Your task to perform on an android device: turn vacation reply on in the gmail app Image 0: 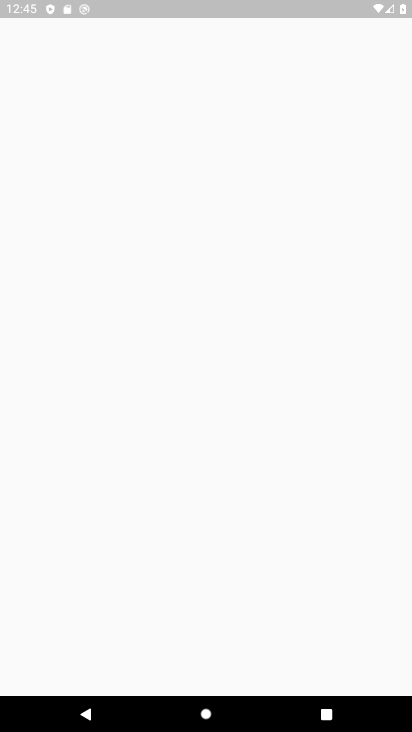
Step 0: press home button
Your task to perform on an android device: turn vacation reply on in the gmail app Image 1: 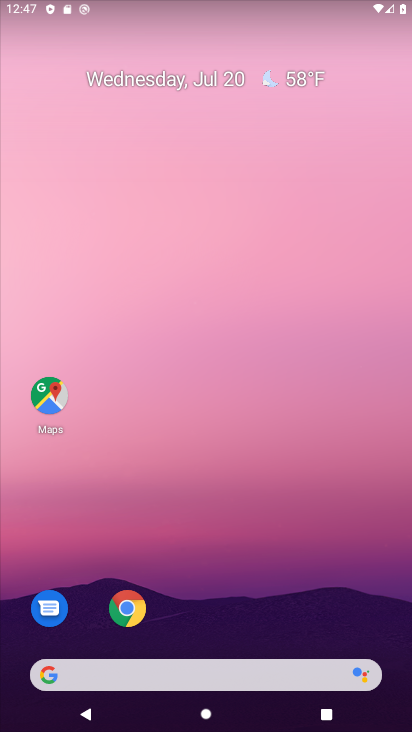
Step 1: drag from (249, 718) to (249, 246)
Your task to perform on an android device: turn vacation reply on in the gmail app Image 2: 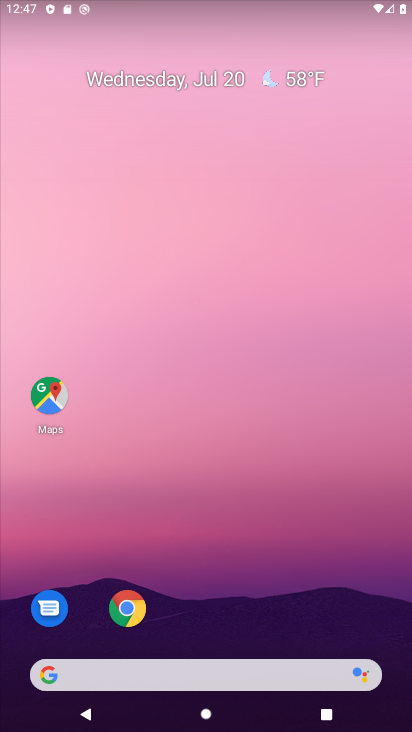
Step 2: drag from (258, 269) to (258, 163)
Your task to perform on an android device: turn vacation reply on in the gmail app Image 3: 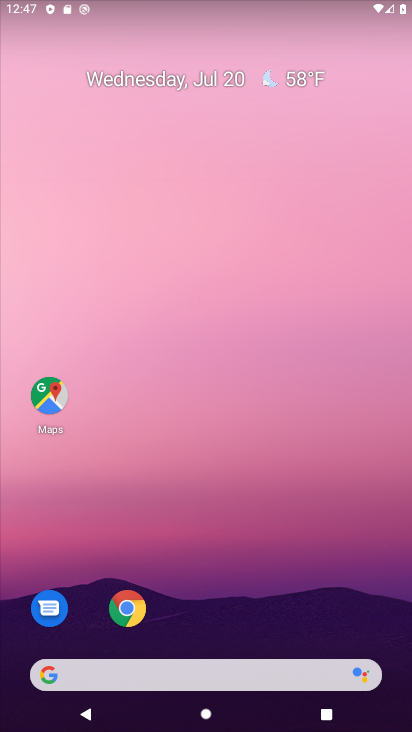
Step 3: drag from (285, 702) to (220, 143)
Your task to perform on an android device: turn vacation reply on in the gmail app Image 4: 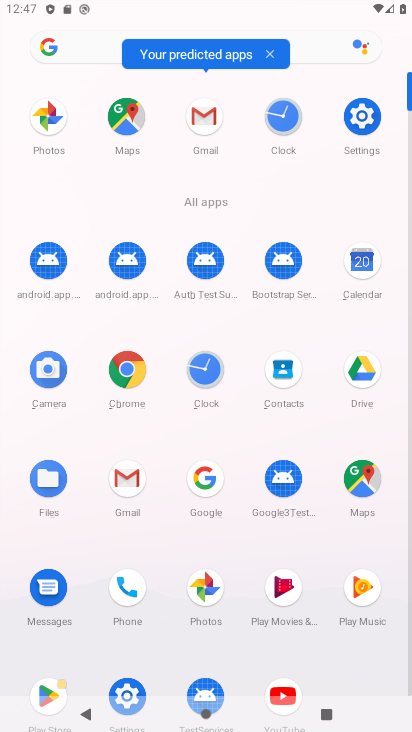
Step 4: click (202, 122)
Your task to perform on an android device: turn vacation reply on in the gmail app Image 5: 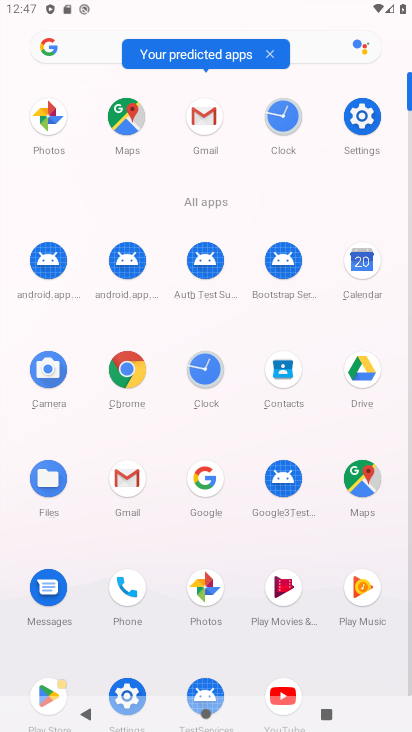
Step 5: click (202, 122)
Your task to perform on an android device: turn vacation reply on in the gmail app Image 6: 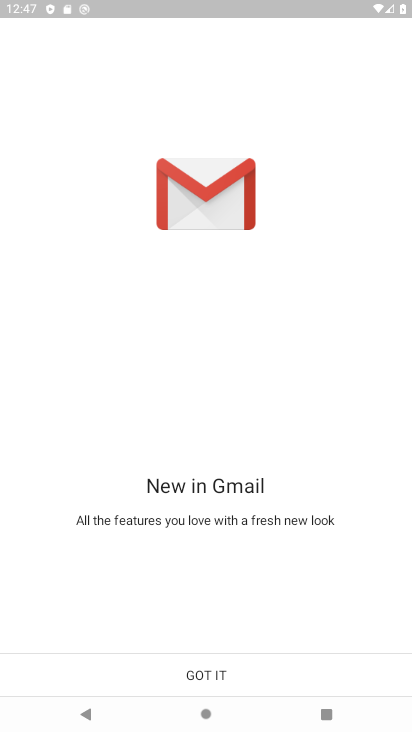
Step 6: click (219, 666)
Your task to perform on an android device: turn vacation reply on in the gmail app Image 7: 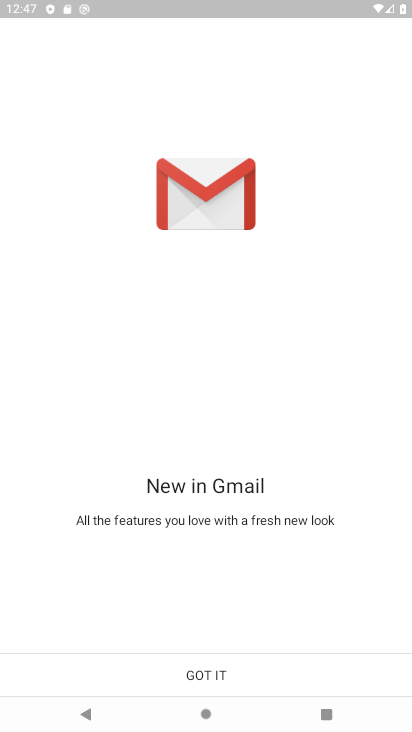
Step 7: click (219, 666)
Your task to perform on an android device: turn vacation reply on in the gmail app Image 8: 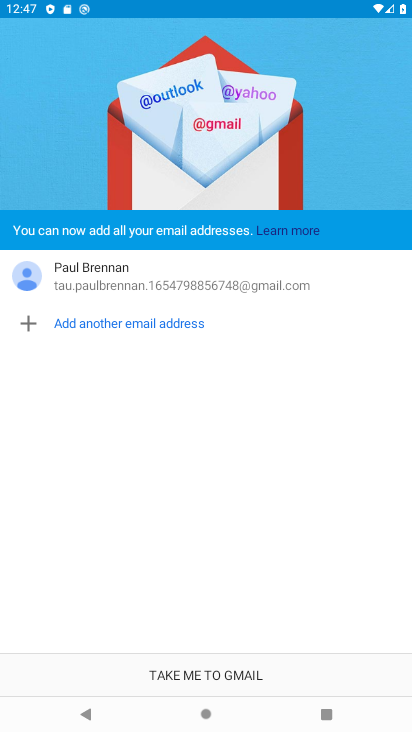
Step 8: click (219, 666)
Your task to perform on an android device: turn vacation reply on in the gmail app Image 9: 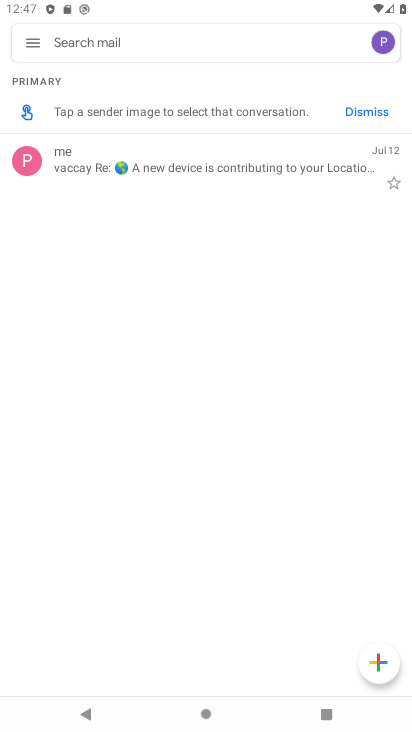
Step 9: click (31, 40)
Your task to perform on an android device: turn vacation reply on in the gmail app Image 10: 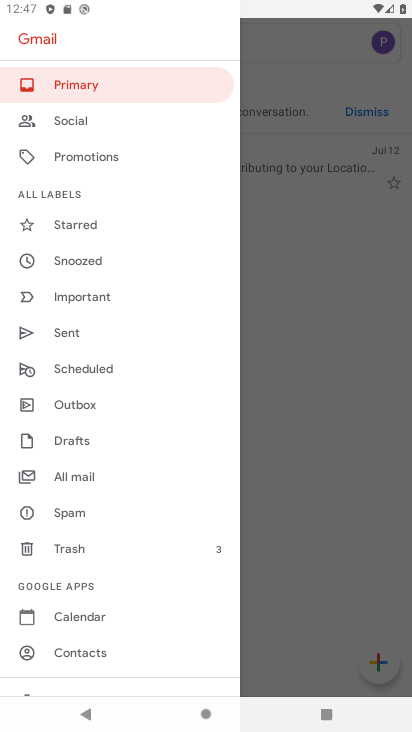
Step 10: drag from (159, 580) to (133, 164)
Your task to perform on an android device: turn vacation reply on in the gmail app Image 11: 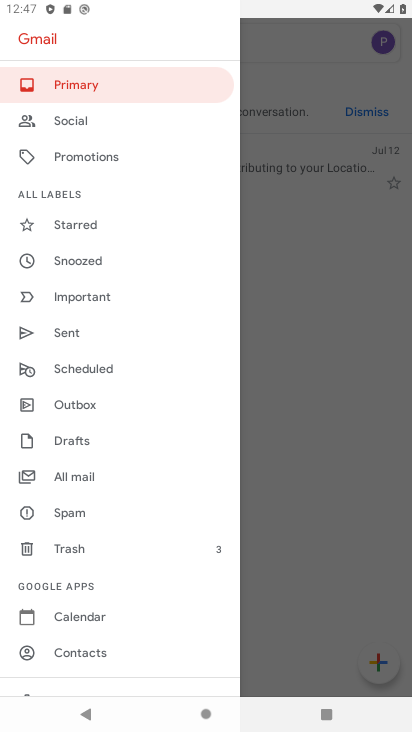
Step 11: drag from (69, 597) to (126, 3)
Your task to perform on an android device: turn vacation reply on in the gmail app Image 12: 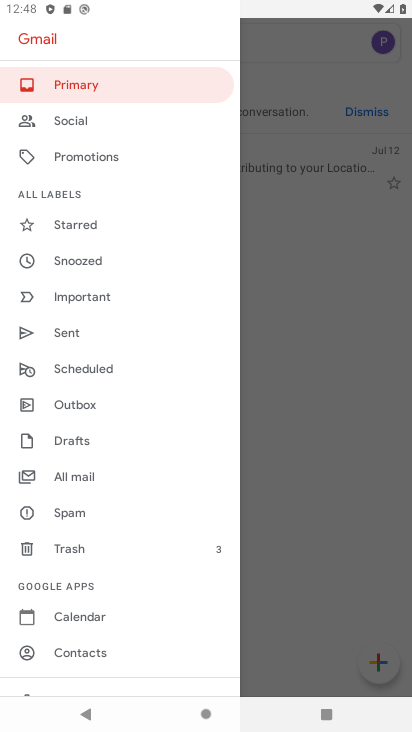
Step 12: drag from (84, 646) to (47, 197)
Your task to perform on an android device: turn vacation reply on in the gmail app Image 13: 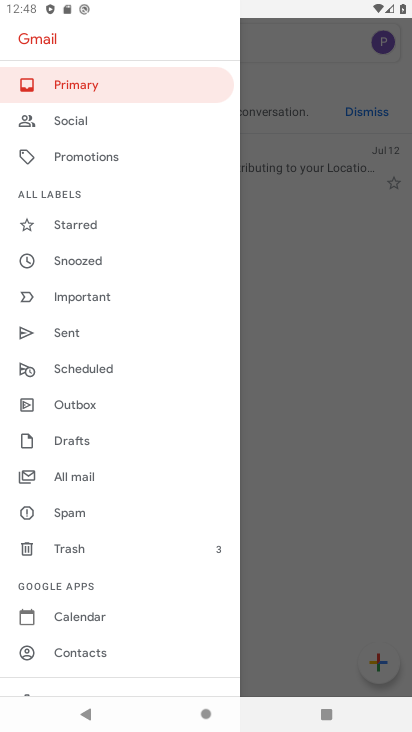
Step 13: drag from (76, 637) to (216, 3)
Your task to perform on an android device: turn vacation reply on in the gmail app Image 14: 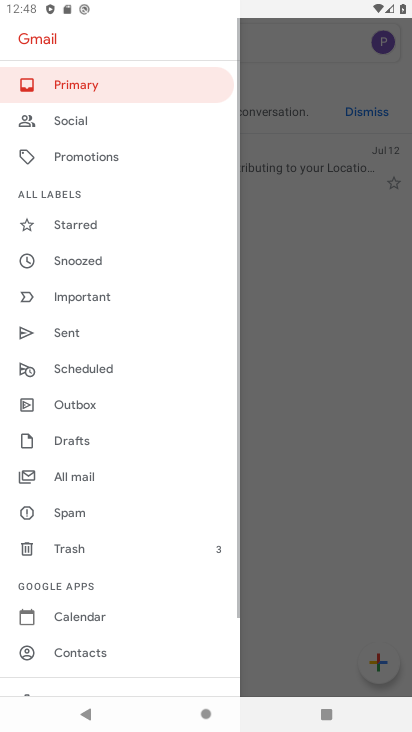
Step 14: drag from (108, 587) to (188, 58)
Your task to perform on an android device: turn vacation reply on in the gmail app Image 15: 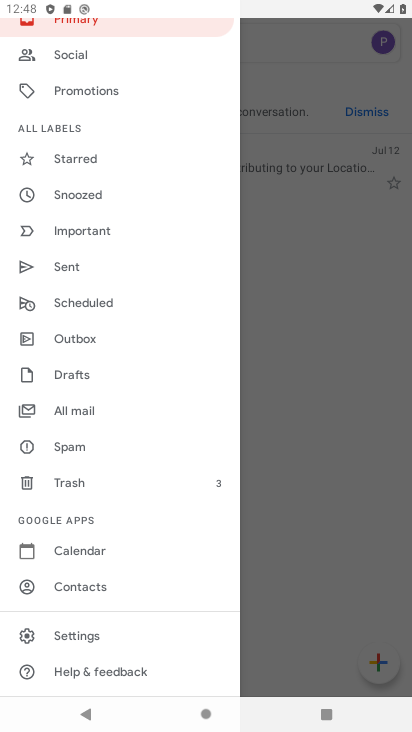
Step 15: click (114, 631)
Your task to perform on an android device: turn vacation reply on in the gmail app Image 16: 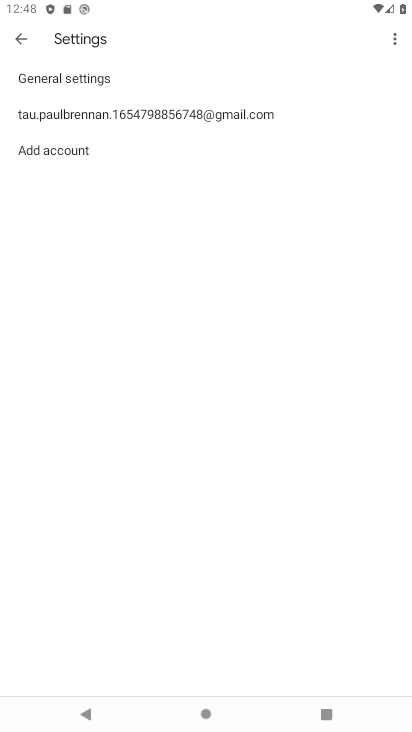
Step 16: click (283, 119)
Your task to perform on an android device: turn vacation reply on in the gmail app Image 17: 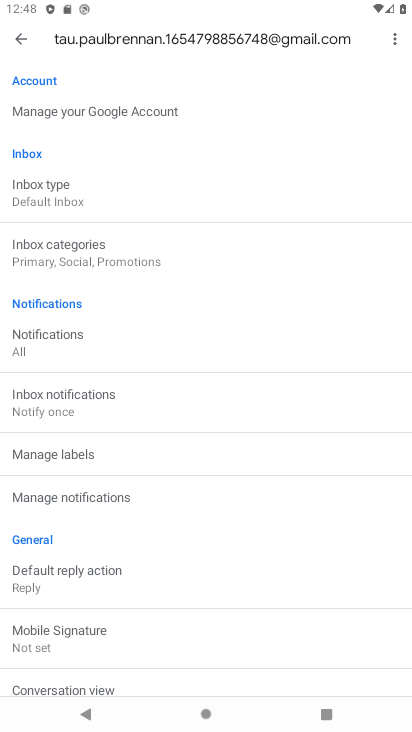
Step 17: drag from (276, 553) to (285, 43)
Your task to perform on an android device: turn vacation reply on in the gmail app Image 18: 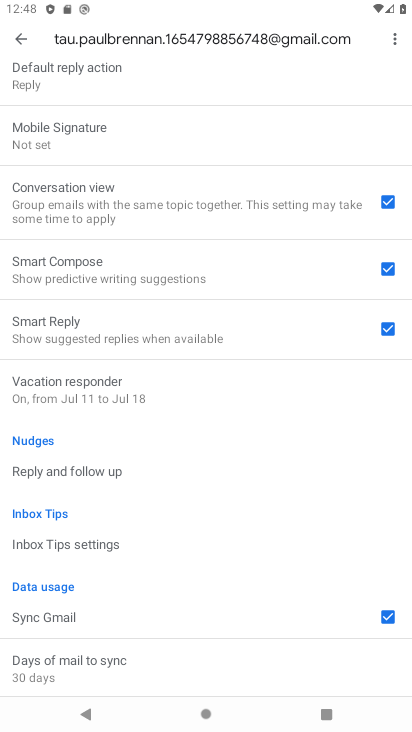
Step 18: click (173, 395)
Your task to perform on an android device: turn vacation reply on in the gmail app Image 19: 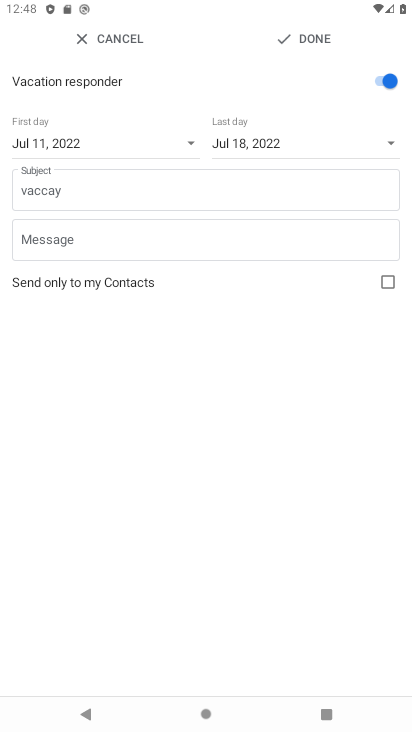
Step 19: click (317, 49)
Your task to perform on an android device: turn vacation reply on in the gmail app Image 20: 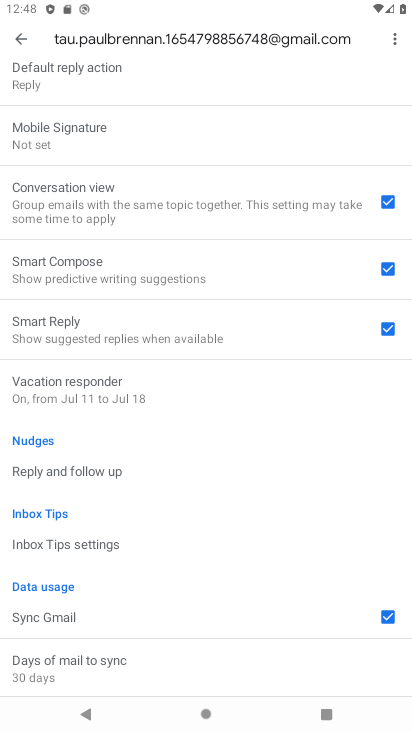
Step 20: task complete